Your task to perform on an android device: Open the Play Movies app and select the watchlist tab. Image 0: 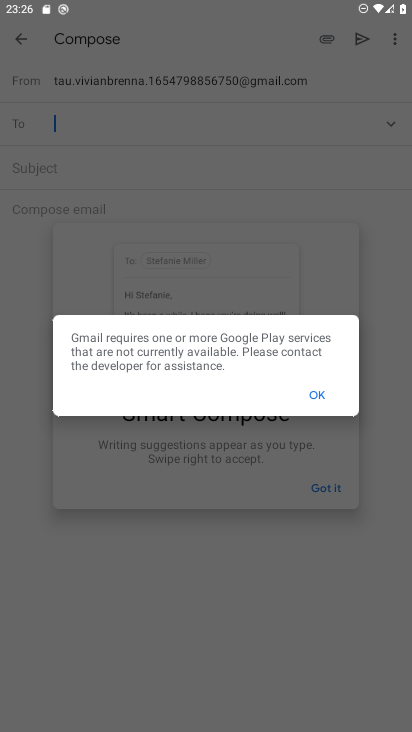
Step 0: press home button
Your task to perform on an android device: Open the Play Movies app and select the watchlist tab. Image 1: 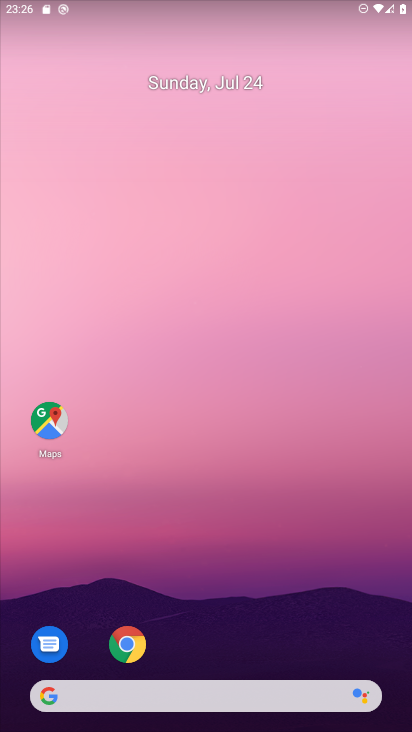
Step 1: drag from (368, 633) to (327, 139)
Your task to perform on an android device: Open the Play Movies app and select the watchlist tab. Image 2: 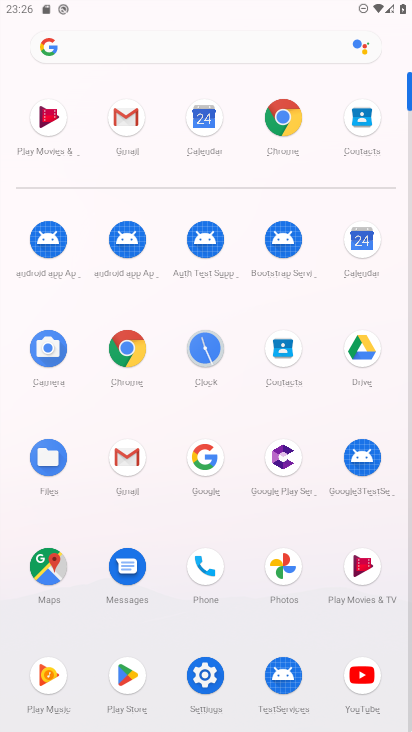
Step 2: click (360, 557)
Your task to perform on an android device: Open the Play Movies app and select the watchlist tab. Image 3: 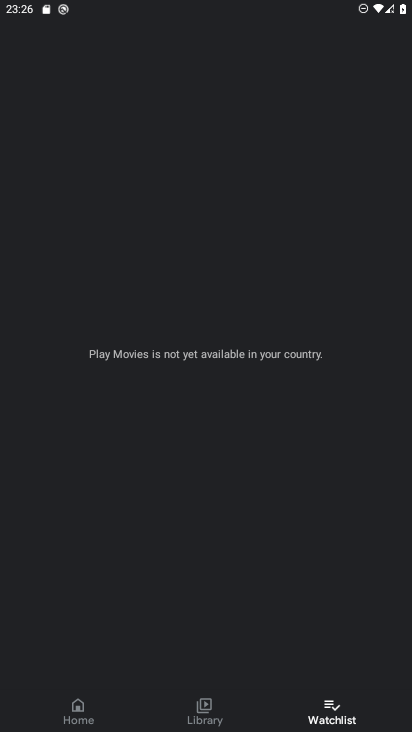
Step 3: task complete